Your task to perform on an android device: check out phone information Image 0: 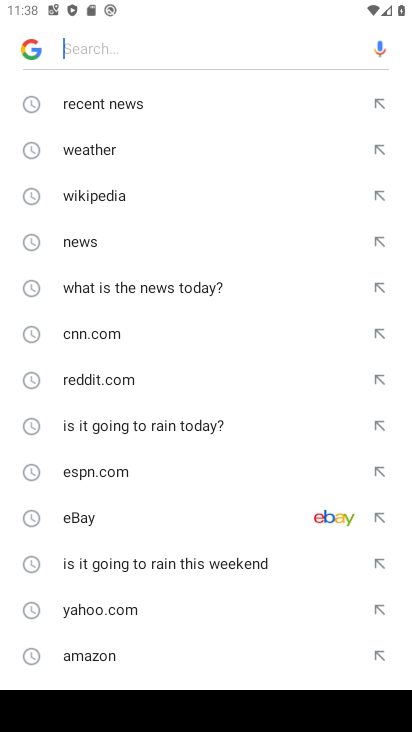
Step 0: press back button
Your task to perform on an android device: check out phone information Image 1: 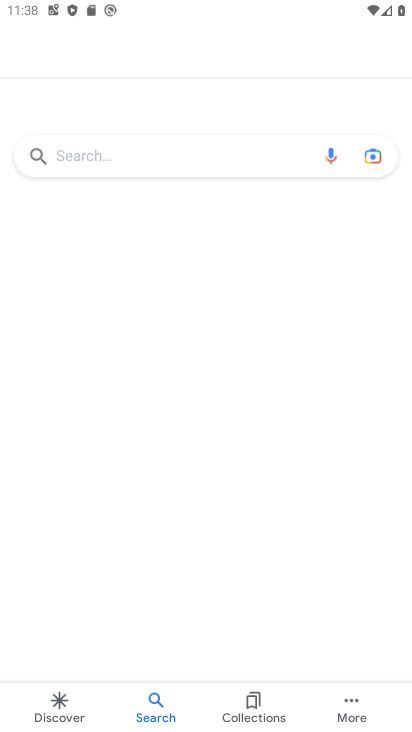
Step 1: press back button
Your task to perform on an android device: check out phone information Image 2: 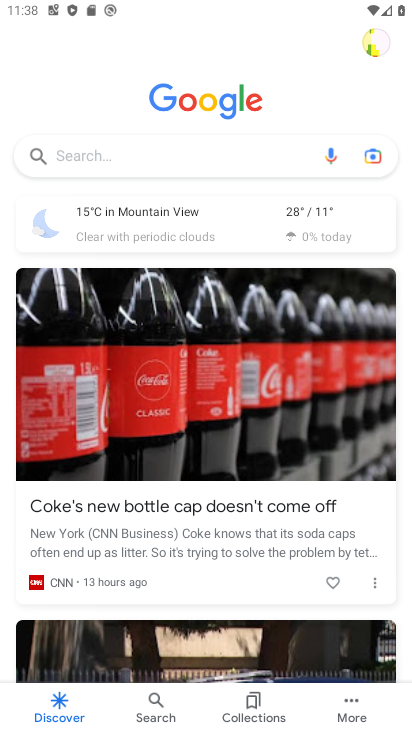
Step 2: press back button
Your task to perform on an android device: check out phone information Image 3: 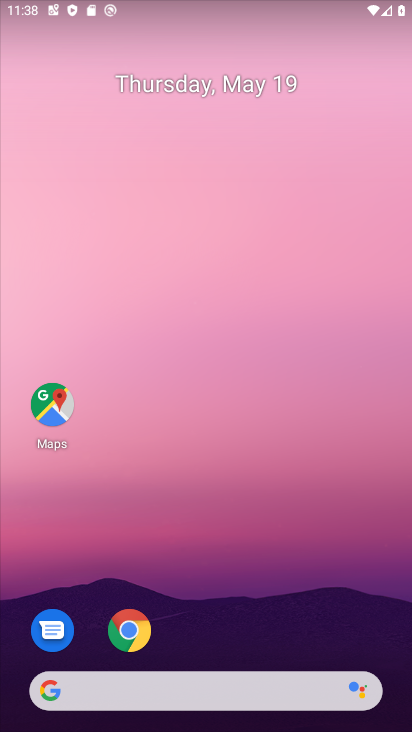
Step 3: drag from (256, 634) to (187, 3)
Your task to perform on an android device: check out phone information Image 4: 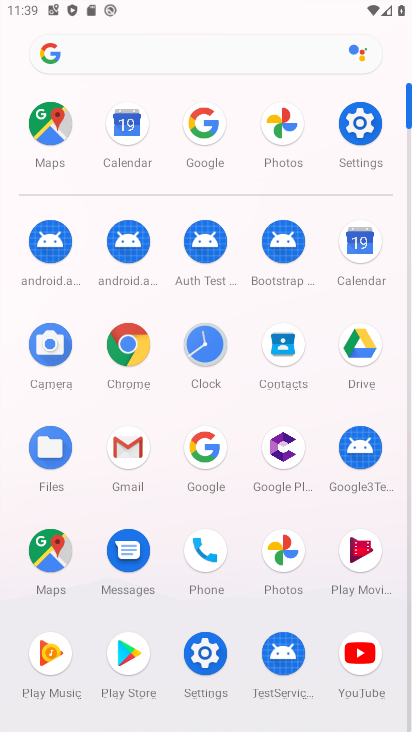
Step 4: click (360, 120)
Your task to perform on an android device: check out phone information Image 5: 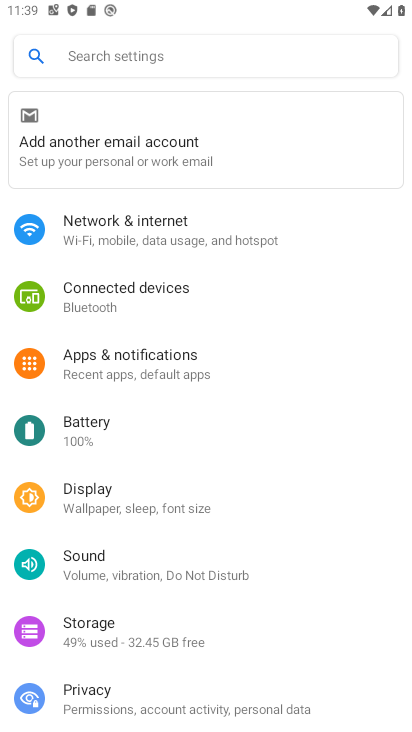
Step 5: drag from (138, 472) to (170, 295)
Your task to perform on an android device: check out phone information Image 6: 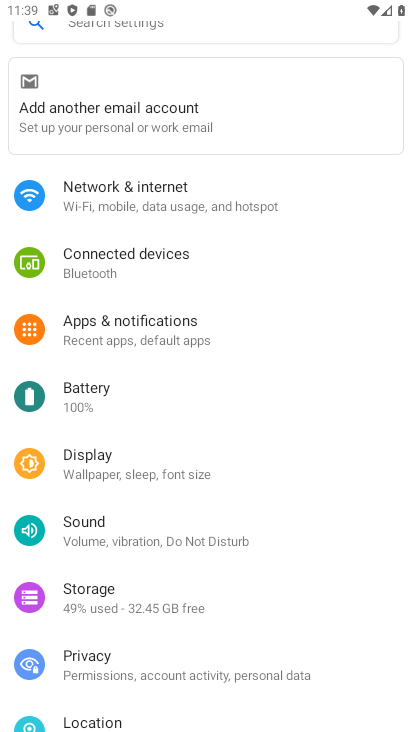
Step 6: drag from (129, 669) to (98, 223)
Your task to perform on an android device: check out phone information Image 7: 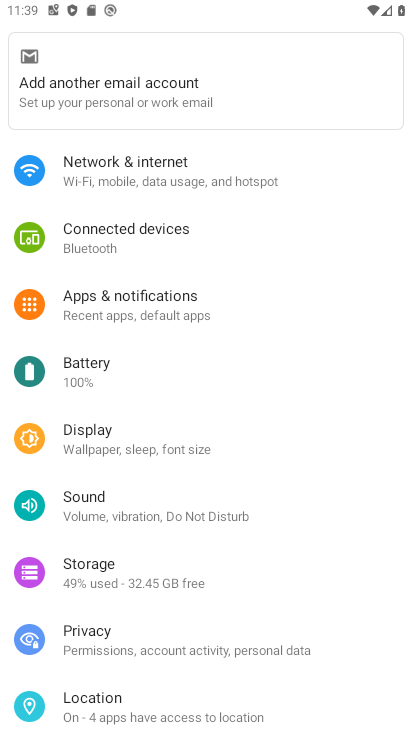
Step 7: drag from (144, 539) to (150, 335)
Your task to perform on an android device: check out phone information Image 8: 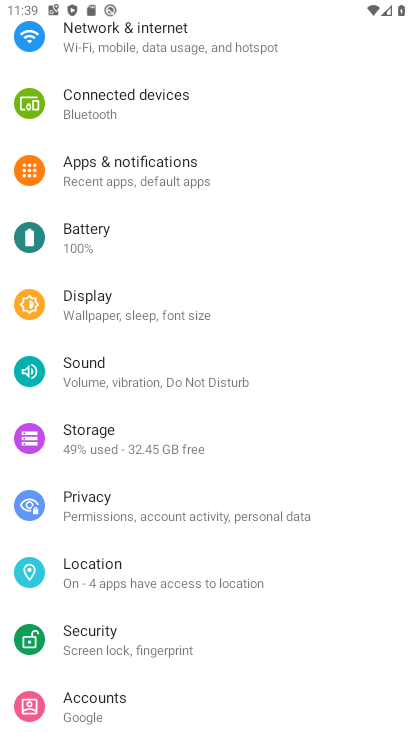
Step 8: drag from (122, 615) to (183, 107)
Your task to perform on an android device: check out phone information Image 9: 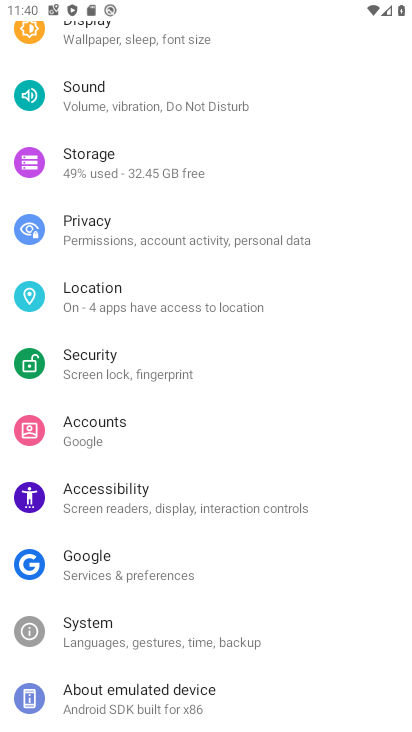
Step 9: click (154, 687)
Your task to perform on an android device: check out phone information Image 10: 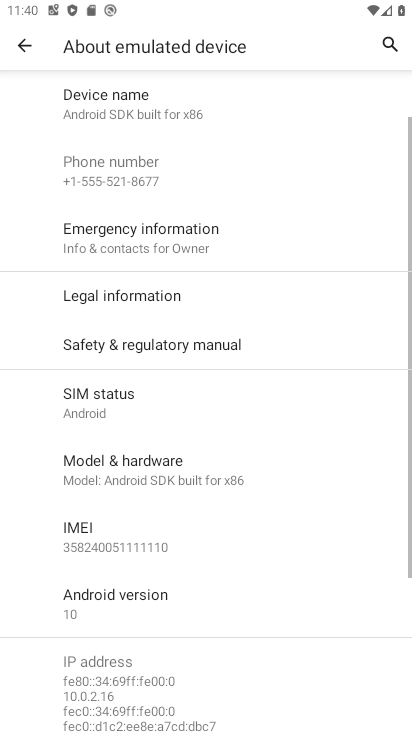
Step 10: task complete